Your task to perform on an android device: check data usage Image 0: 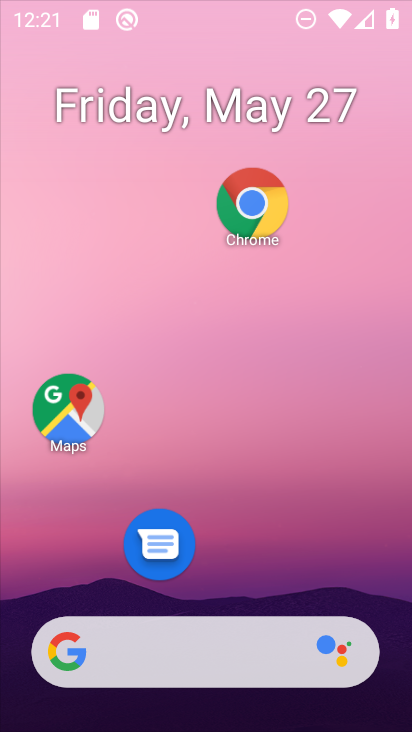
Step 0: click (209, 206)
Your task to perform on an android device: check data usage Image 1: 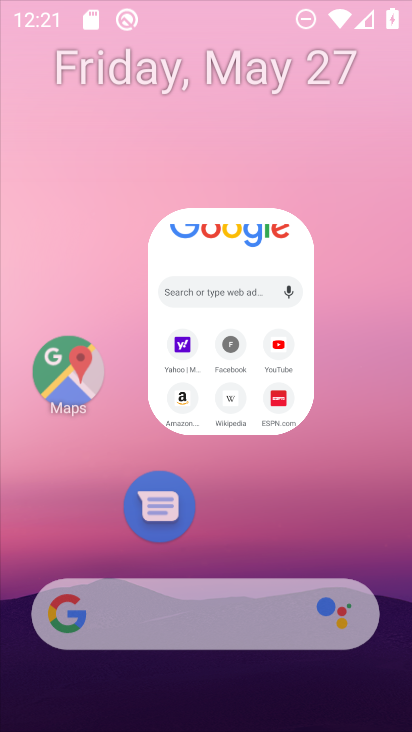
Step 1: drag from (228, 609) to (225, 102)
Your task to perform on an android device: check data usage Image 2: 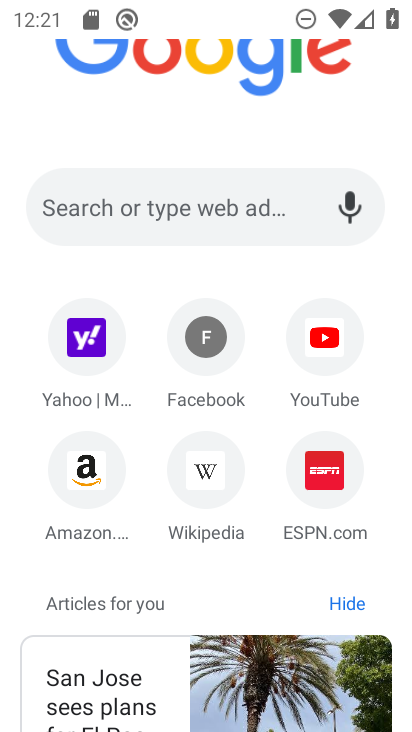
Step 2: drag from (257, 282) to (249, 576)
Your task to perform on an android device: check data usage Image 3: 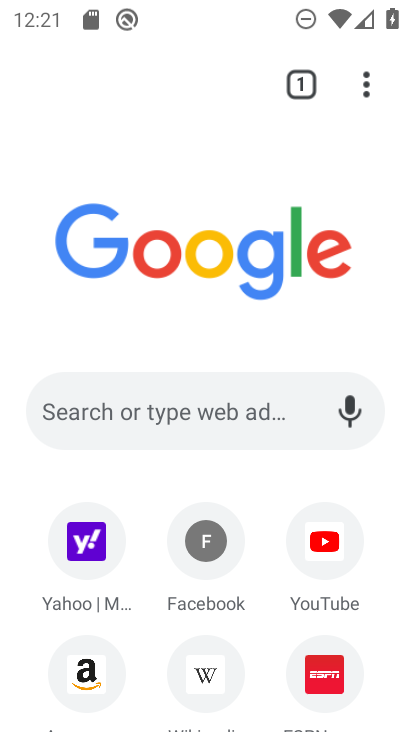
Step 3: drag from (272, 645) to (266, 229)
Your task to perform on an android device: check data usage Image 4: 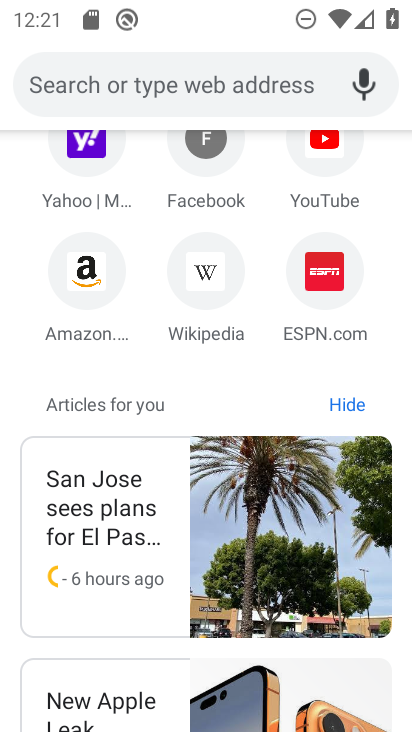
Step 4: drag from (280, 201) to (300, 662)
Your task to perform on an android device: check data usage Image 5: 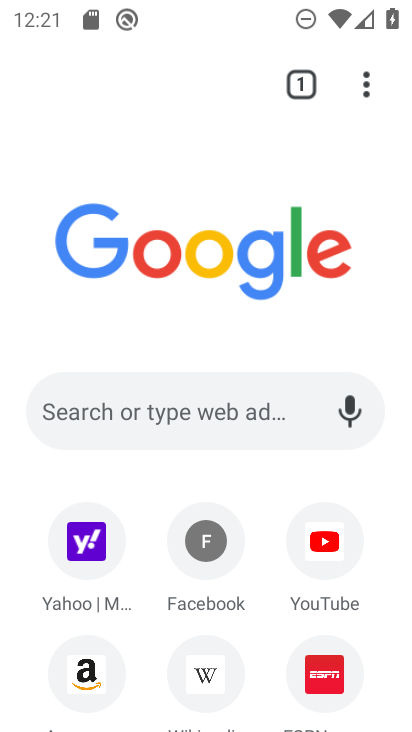
Step 5: drag from (370, 73) to (78, 583)
Your task to perform on an android device: check data usage Image 6: 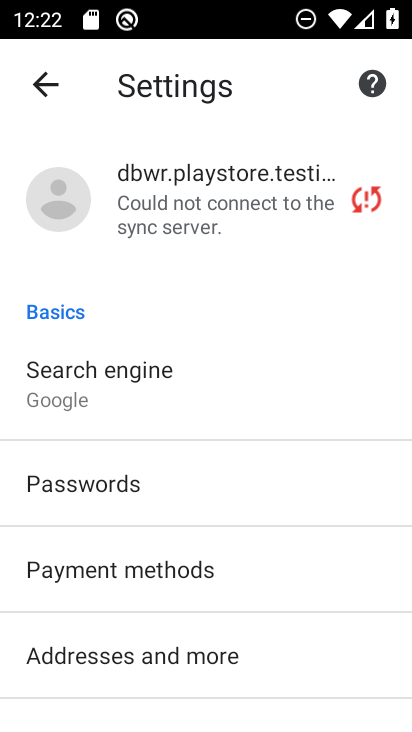
Step 6: press home button
Your task to perform on an android device: check data usage Image 7: 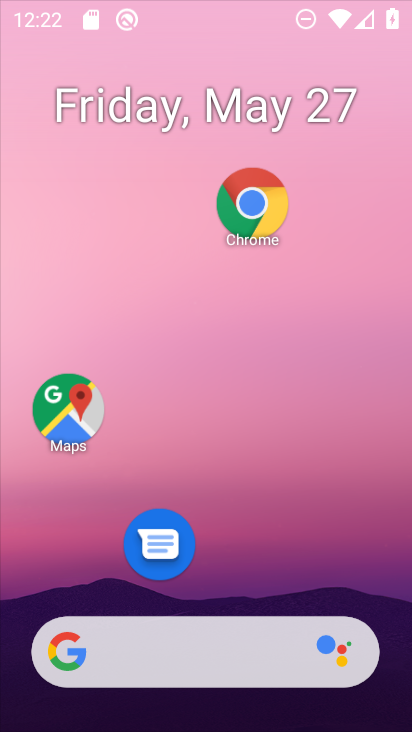
Step 7: drag from (234, 626) to (242, 232)
Your task to perform on an android device: check data usage Image 8: 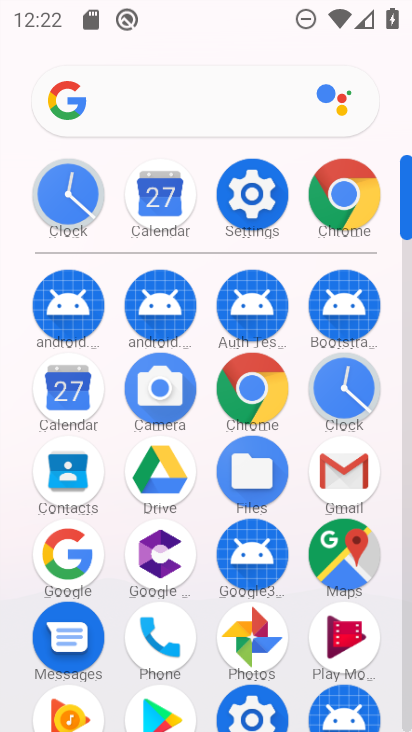
Step 8: click (261, 168)
Your task to perform on an android device: check data usage Image 9: 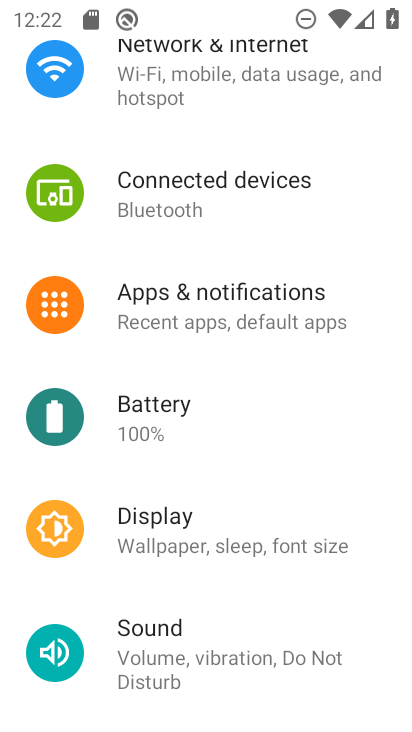
Step 9: drag from (205, 214) to (232, 456)
Your task to perform on an android device: check data usage Image 10: 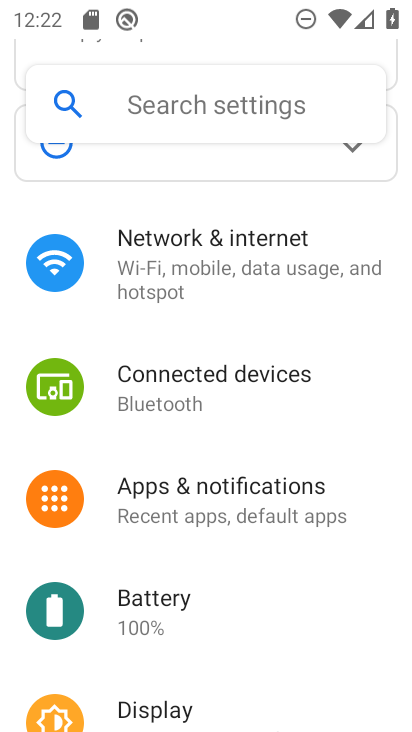
Step 10: click (193, 288)
Your task to perform on an android device: check data usage Image 11: 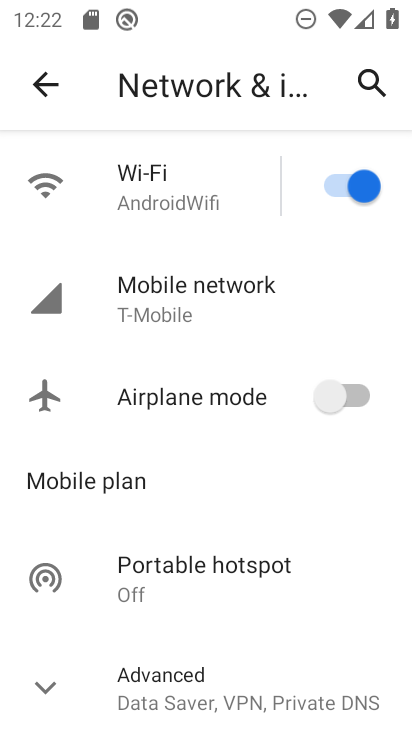
Step 11: click (239, 293)
Your task to perform on an android device: check data usage Image 12: 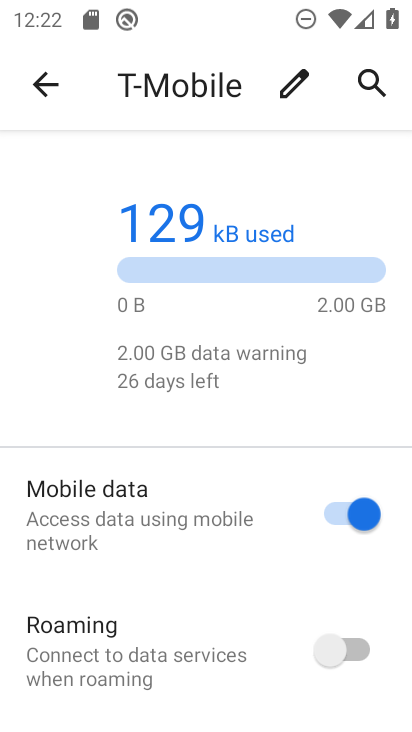
Step 12: task complete